Your task to perform on an android device: Search for the new Nintendo switch on Best Buy Image 0: 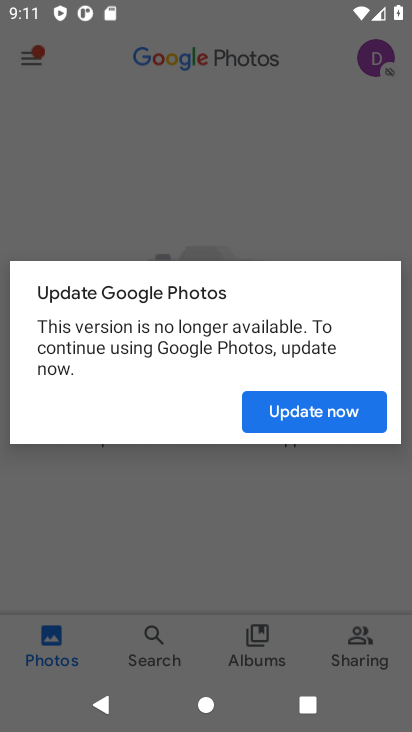
Step 0: press home button
Your task to perform on an android device: Search for the new Nintendo switch on Best Buy Image 1: 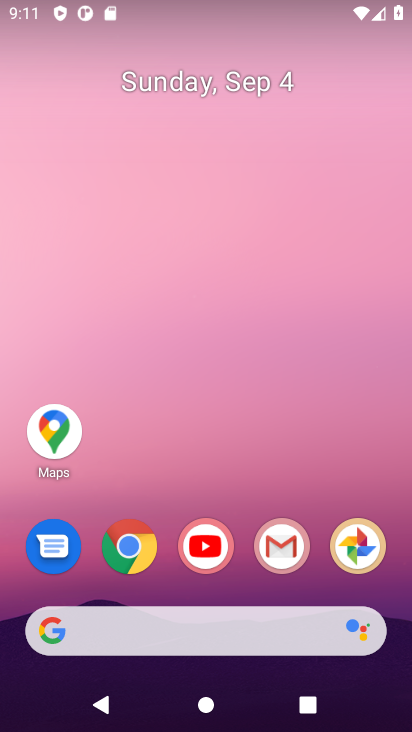
Step 1: click (138, 550)
Your task to perform on an android device: Search for the new Nintendo switch on Best Buy Image 2: 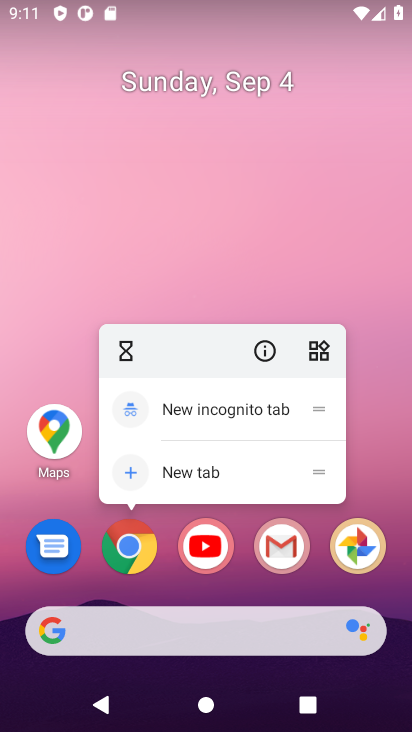
Step 2: click (138, 548)
Your task to perform on an android device: Search for the new Nintendo switch on Best Buy Image 3: 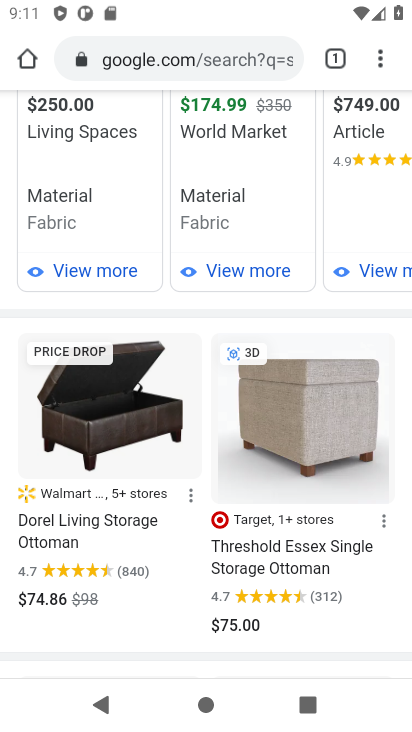
Step 3: click (157, 59)
Your task to perform on an android device: Search for the new Nintendo switch on Best Buy Image 4: 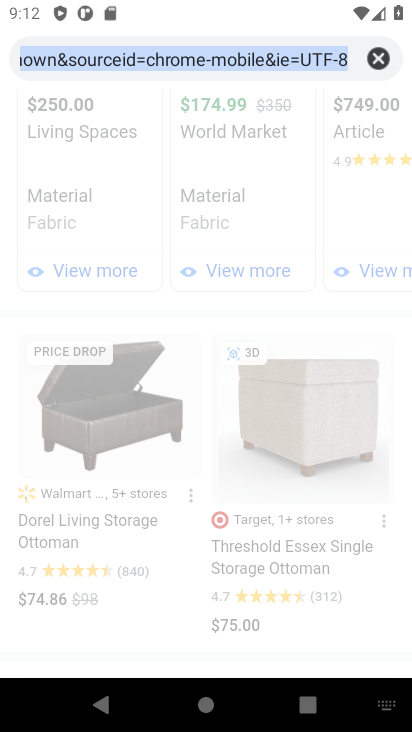
Step 4: click (382, 58)
Your task to perform on an android device: Search for the new Nintendo switch on Best Buy Image 5: 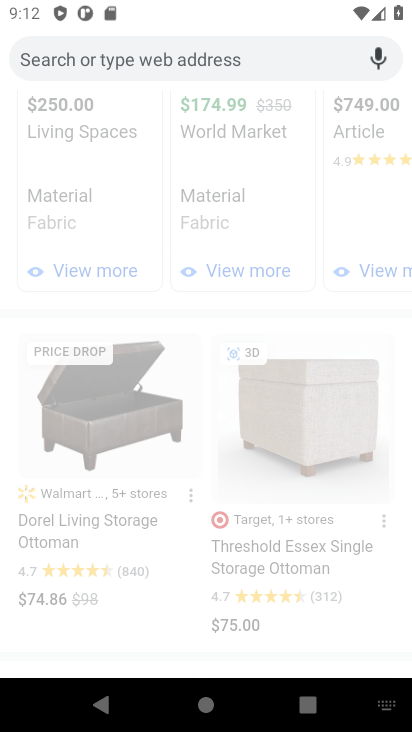
Step 5: type "Best Buy"
Your task to perform on an android device: Search for the new Nintendo switch on Best Buy Image 6: 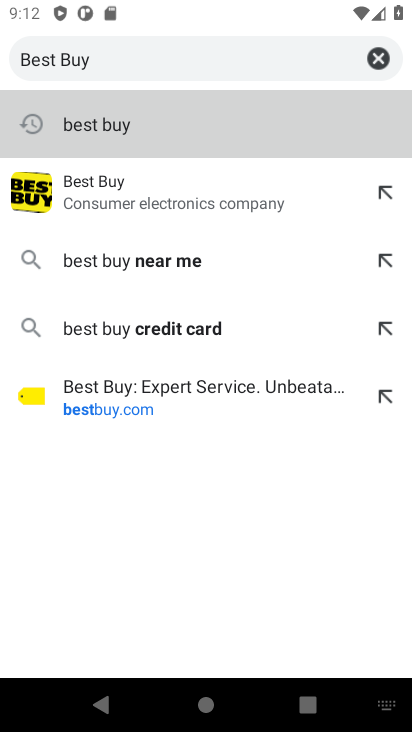
Step 6: click (100, 128)
Your task to perform on an android device: Search for the new Nintendo switch on Best Buy Image 7: 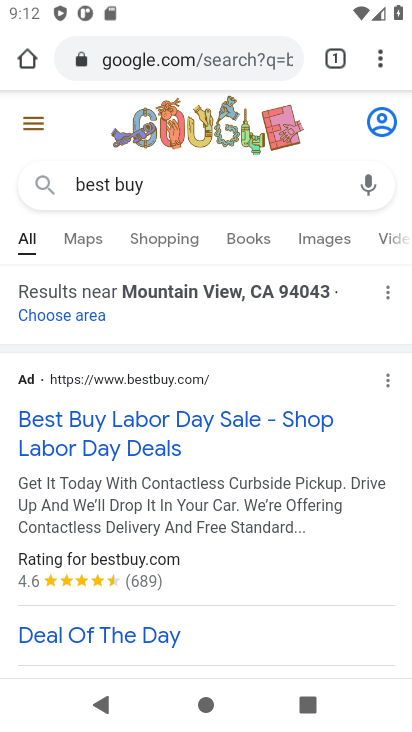
Step 7: drag from (209, 539) to (206, 141)
Your task to perform on an android device: Search for the new Nintendo switch on Best Buy Image 8: 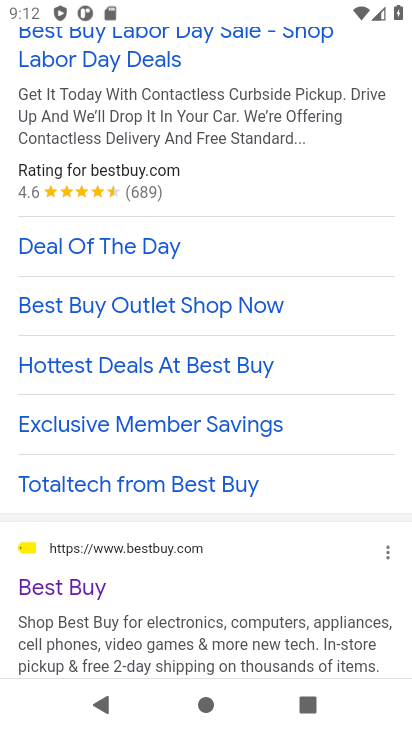
Step 8: click (64, 590)
Your task to perform on an android device: Search for the new Nintendo switch on Best Buy Image 9: 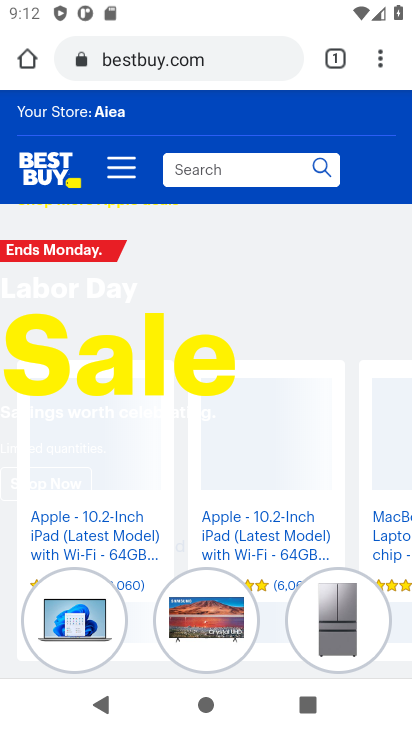
Step 9: click (213, 176)
Your task to perform on an android device: Search for the new Nintendo switch on Best Buy Image 10: 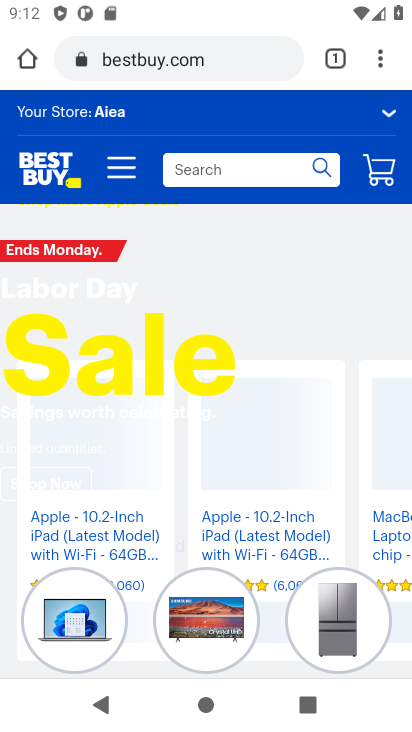
Step 10: type "new Nintendo switch "
Your task to perform on an android device: Search for the new Nintendo switch on Best Buy Image 11: 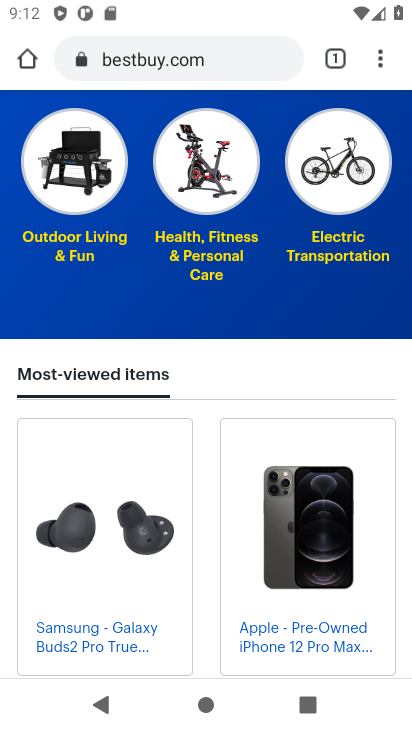
Step 11: drag from (165, 285) to (174, 169)
Your task to perform on an android device: Search for the new Nintendo switch on Best Buy Image 12: 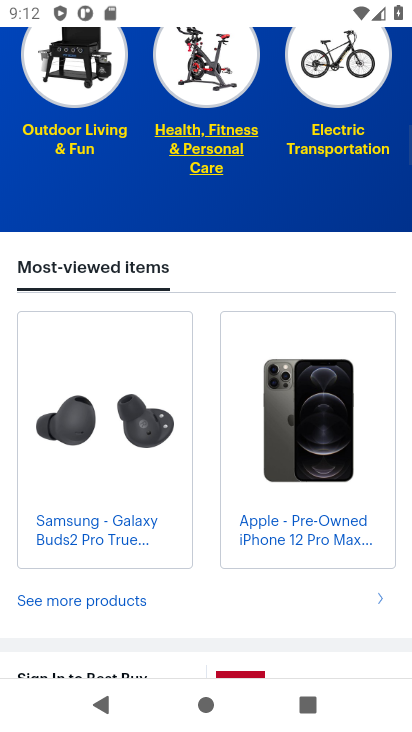
Step 12: drag from (170, 361) to (183, 570)
Your task to perform on an android device: Search for the new Nintendo switch on Best Buy Image 13: 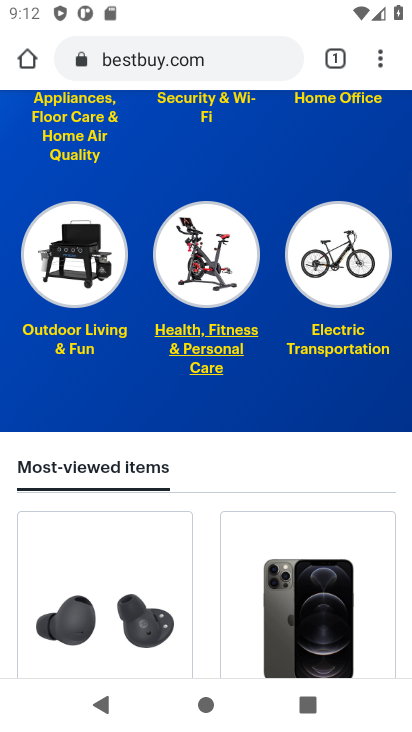
Step 13: drag from (189, 322) to (186, 464)
Your task to perform on an android device: Search for the new Nintendo switch on Best Buy Image 14: 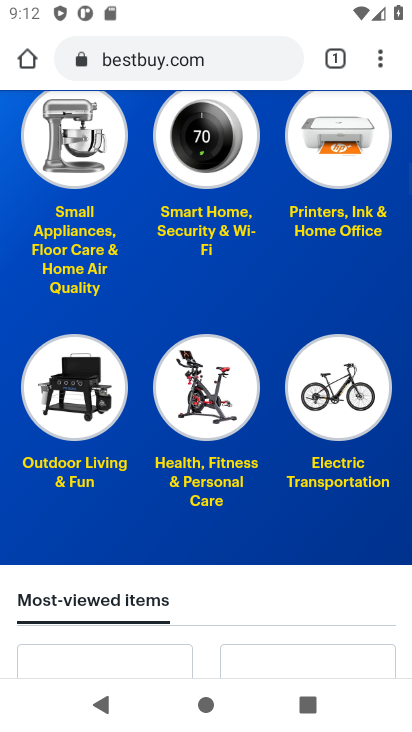
Step 14: drag from (203, 400) to (191, 548)
Your task to perform on an android device: Search for the new Nintendo switch on Best Buy Image 15: 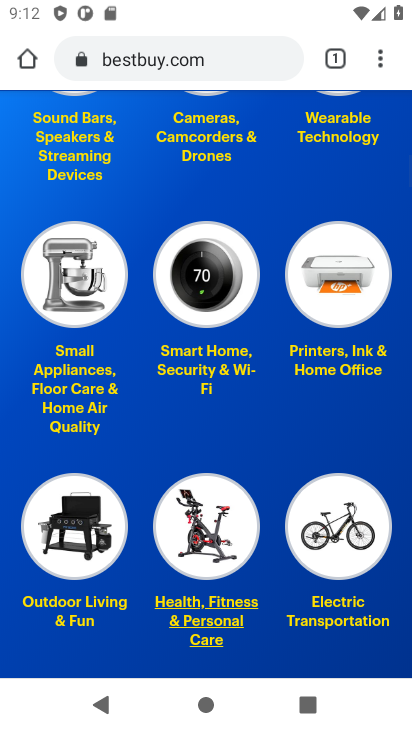
Step 15: drag from (242, 287) to (224, 575)
Your task to perform on an android device: Search for the new Nintendo switch on Best Buy Image 16: 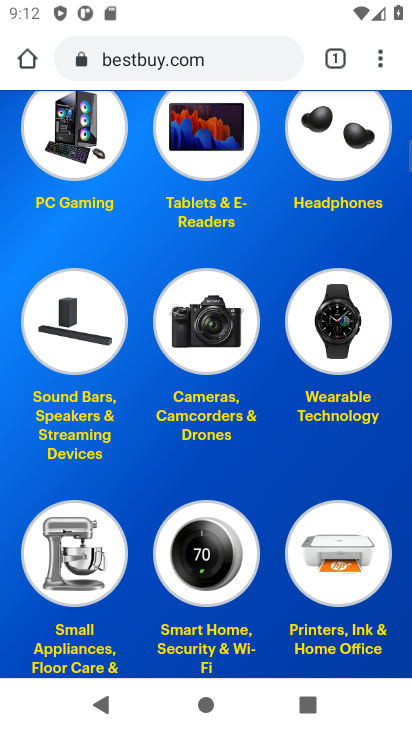
Step 16: drag from (230, 503) to (224, 604)
Your task to perform on an android device: Search for the new Nintendo switch on Best Buy Image 17: 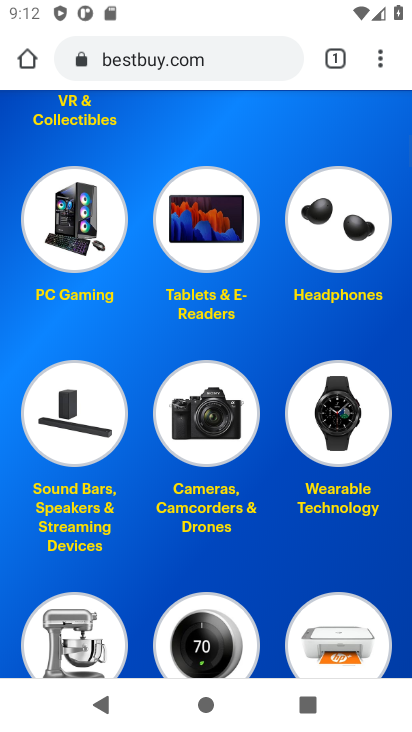
Step 17: drag from (263, 380) to (262, 590)
Your task to perform on an android device: Search for the new Nintendo switch on Best Buy Image 18: 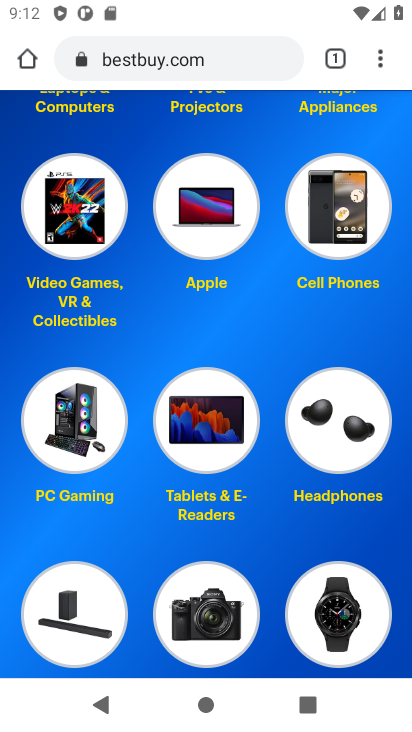
Step 18: drag from (251, 138) to (246, 664)
Your task to perform on an android device: Search for the new Nintendo switch on Best Buy Image 19: 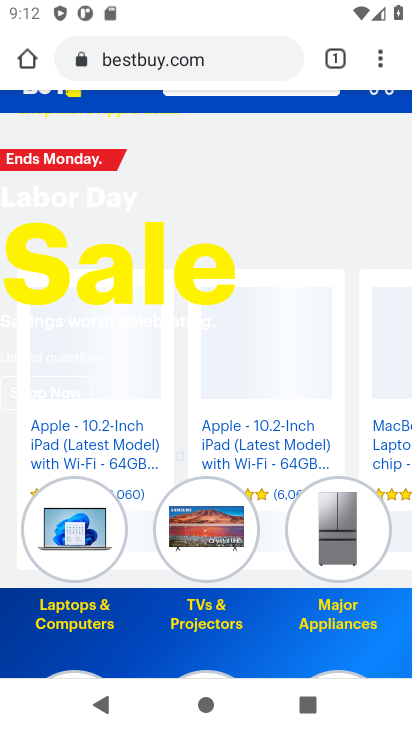
Step 19: drag from (249, 252) to (219, 578)
Your task to perform on an android device: Search for the new Nintendo switch on Best Buy Image 20: 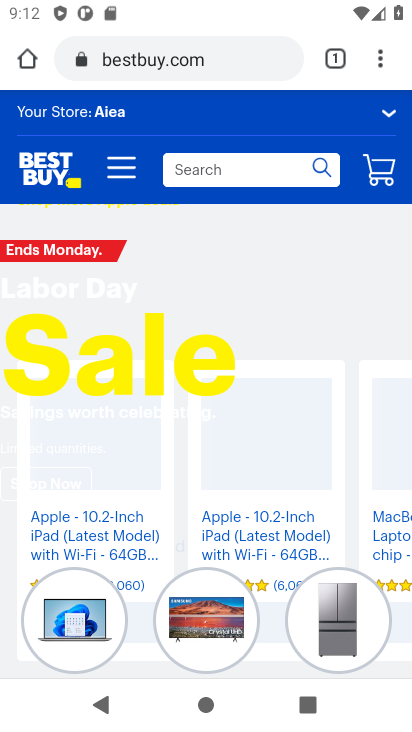
Step 20: click (309, 167)
Your task to perform on an android device: Search for the new Nintendo switch on Best Buy Image 21: 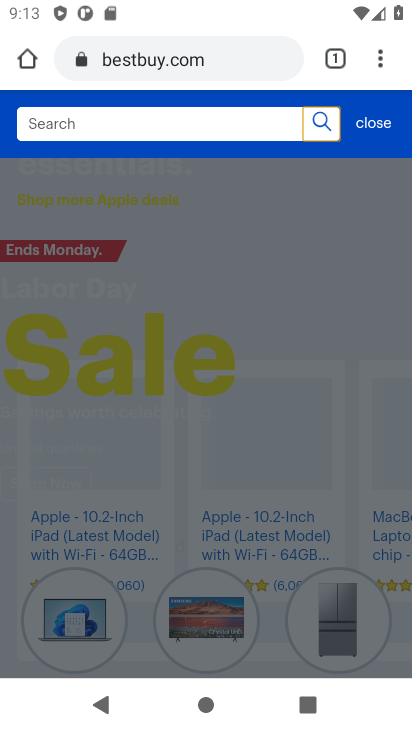
Step 21: click (69, 114)
Your task to perform on an android device: Search for the new Nintendo switch on Best Buy Image 22: 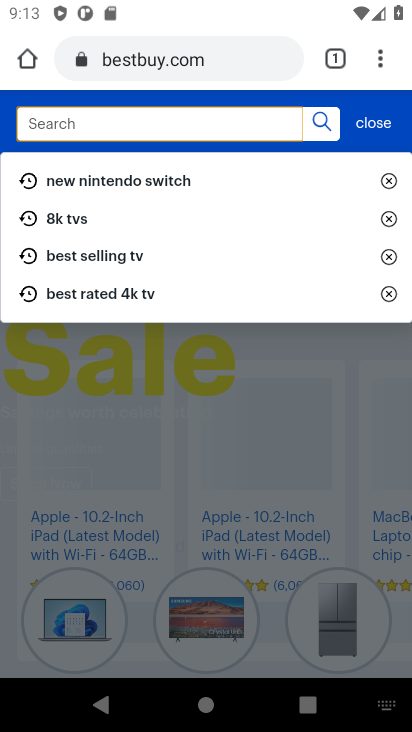
Step 22: type "new Nintendo switch "
Your task to perform on an android device: Search for the new Nintendo switch on Best Buy Image 23: 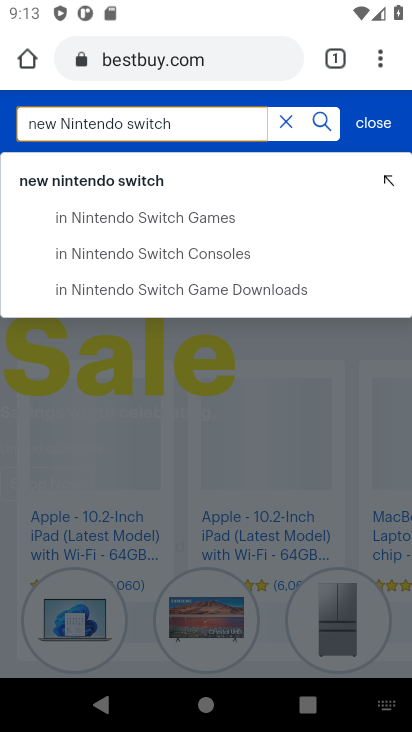
Step 23: click (111, 188)
Your task to perform on an android device: Search for the new Nintendo switch on Best Buy Image 24: 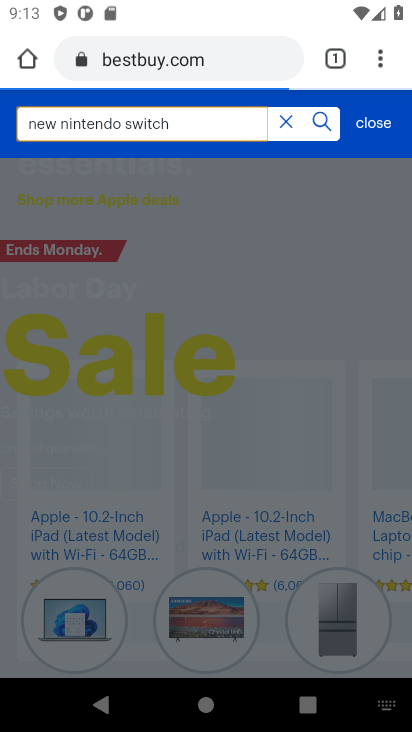
Step 24: click (316, 119)
Your task to perform on an android device: Search for the new Nintendo switch on Best Buy Image 25: 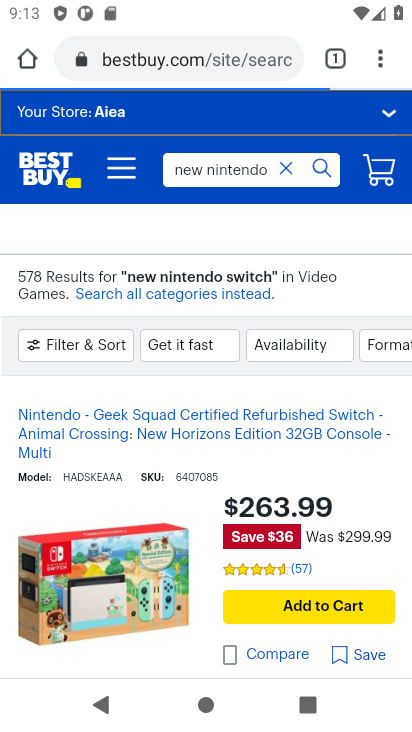
Step 25: task complete